Your task to perform on an android device: turn off data saver in the chrome app Image 0: 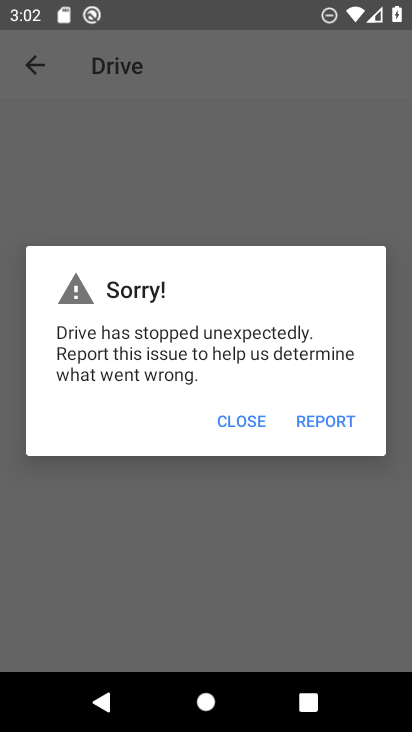
Step 0: press back button
Your task to perform on an android device: turn off data saver in the chrome app Image 1: 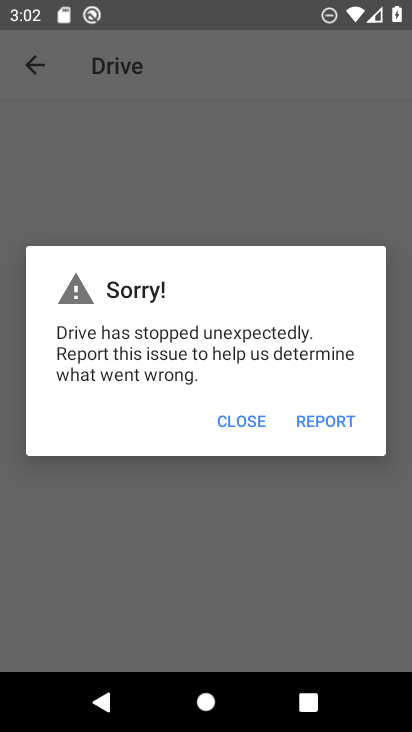
Step 1: press home button
Your task to perform on an android device: turn off data saver in the chrome app Image 2: 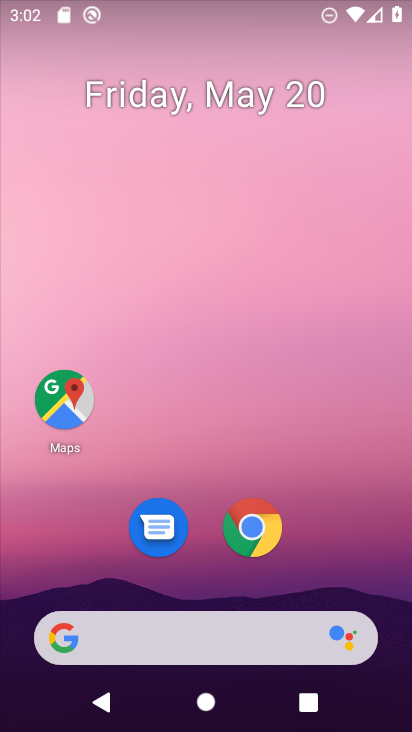
Step 2: click (257, 549)
Your task to perform on an android device: turn off data saver in the chrome app Image 3: 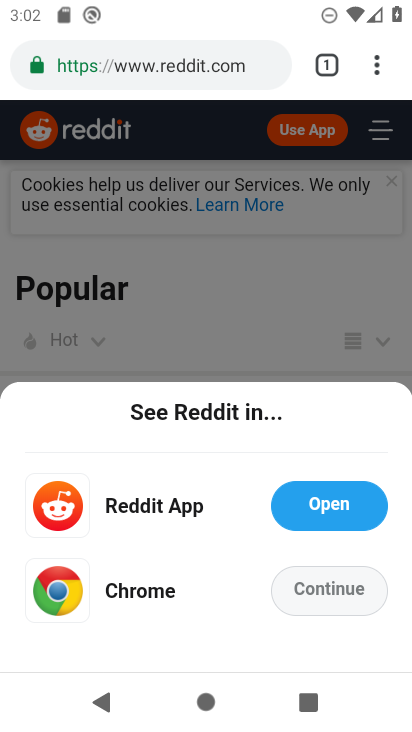
Step 3: click (377, 56)
Your task to perform on an android device: turn off data saver in the chrome app Image 4: 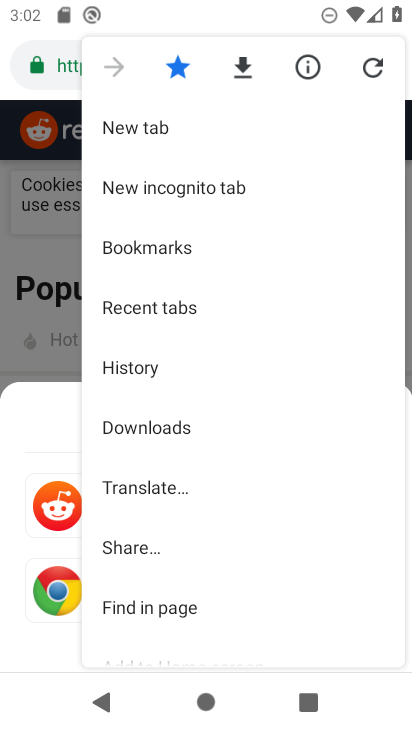
Step 4: drag from (164, 610) to (255, 108)
Your task to perform on an android device: turn off data saver in the chrome app Image 5: 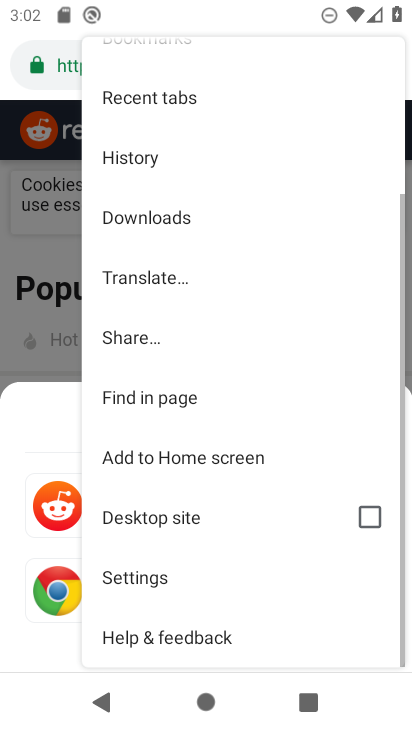
Step 5: click (150, 578)
Your task to perform on an android device: turn off data saver in the chrome app Image 6: 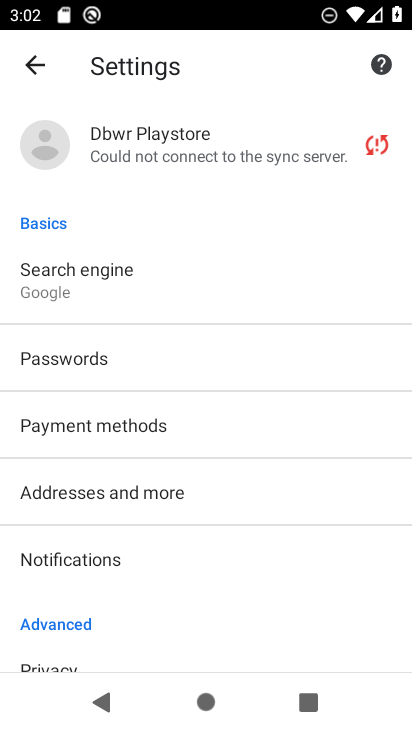
Step 6: drag from (140, 602) to (241, 160)
Your task to perform on an android device: turn off data saver in the chrome app Image 7: 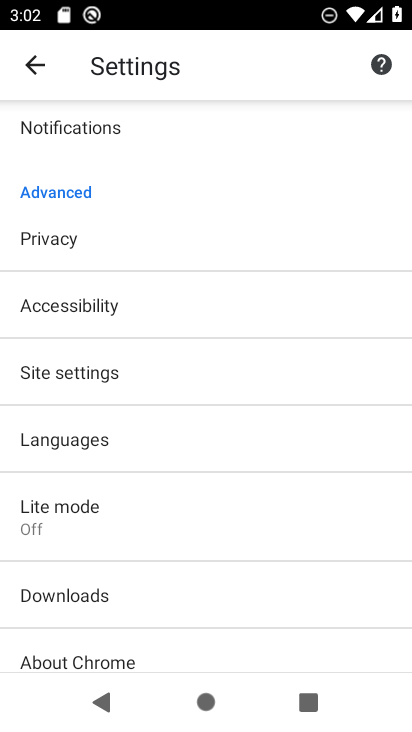
Step 7: click (90, 515)
Your task to perform on an android device: turn off data saver in the chrome app Image 8: 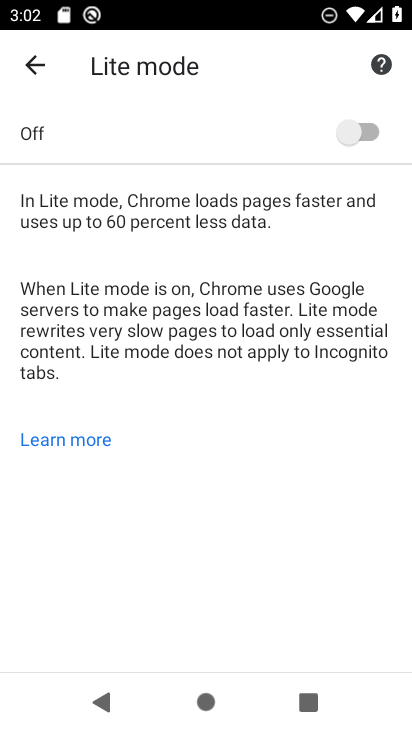
Step 8: task complete